Your task to perform on an android device: Open notification settings Image 0: 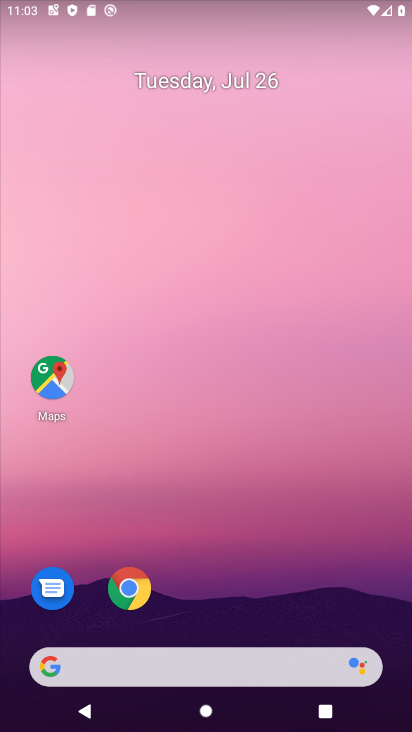
Step 0: drag from (208, 542) to (119, 83)
Your task to perform on an android device: Open notification settings Image 1: 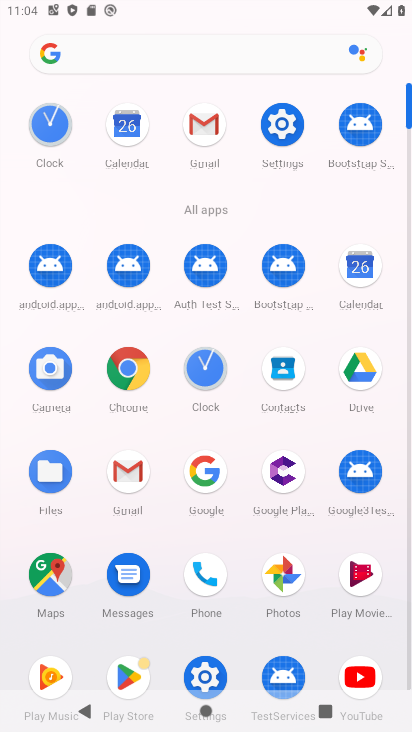
Step 1: click (206, 663)
Your task to perform on an android device: Open notification settings Image 2: 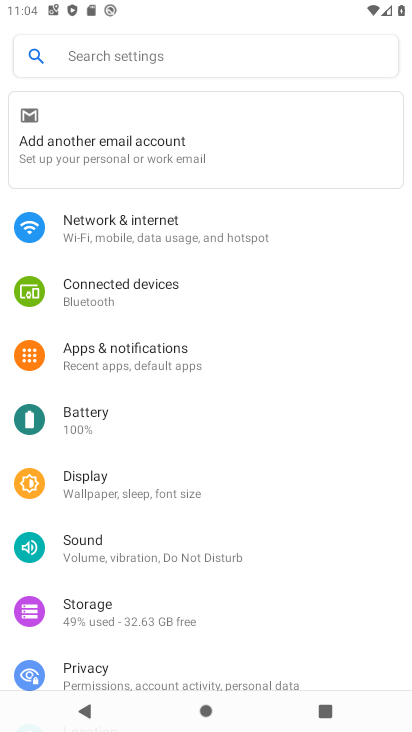
Step 2: click (132, 370)
Your task to perform on an android device: Open notification settings Image 3: 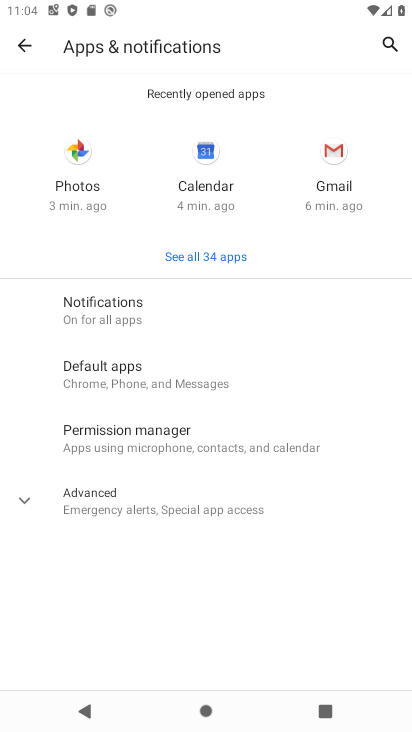
Step 3: task complete